Your task to perform on an android device: turn on bluetooth scan Image 0: 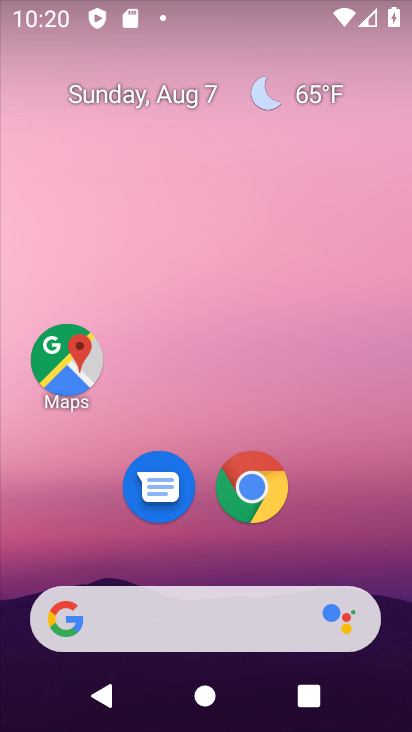
Step 0: drag from (399, 707) to (314, 24)
Your task to perform on an android device: turn on bluetooth scan Image 1: 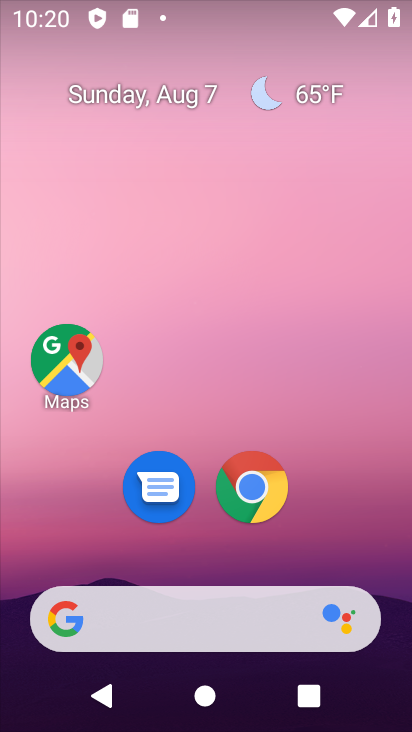
Step 1: drag from (377, 685) to (216, 22)
Your task to perform on an android device: turn on bluetooth scan Image 2: 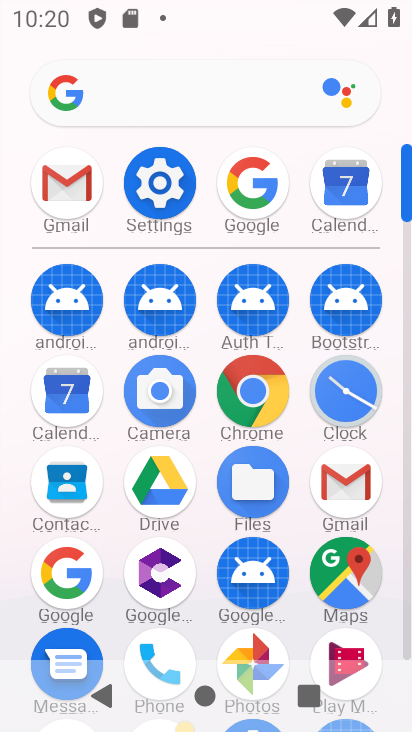
Step 2: drag from (118, 203) to (172, 178)
Your task to perform on an android device: turn on bluetooth scan Image 3: 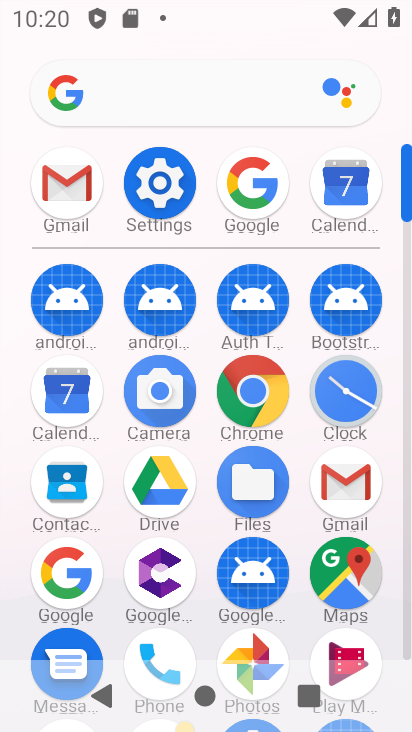
Step 3: click (171, 178)
Your task to perform on an android device: turn on bluetooth scan Image 4: 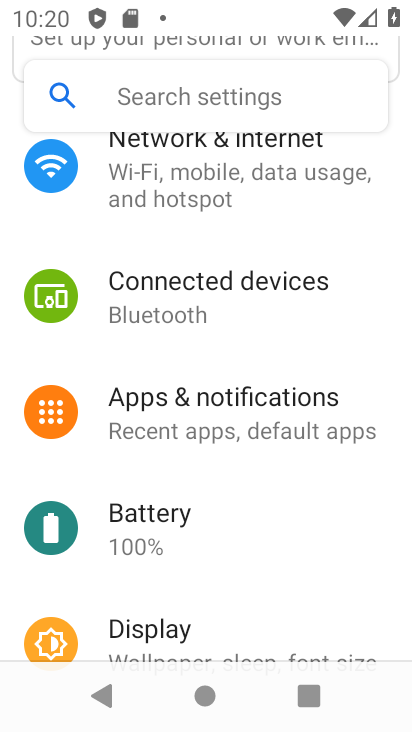
Step 4: drag from (232, 581) to (293, 189)
Your task to perform on an android device: turn on bluetooth scan Image 5: 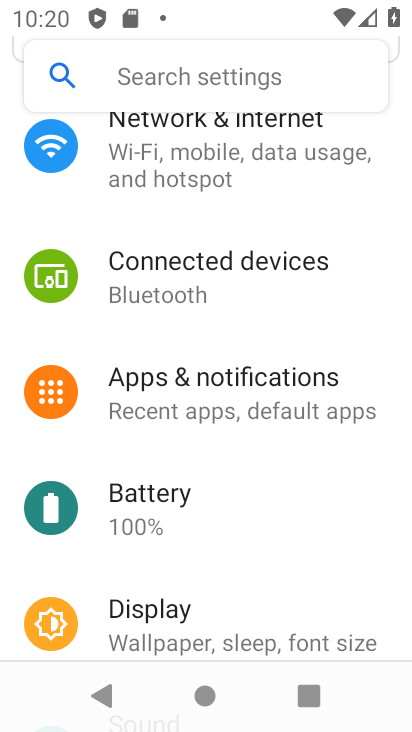
Step 5: drag from (300, 578) to (267, 182)
Your task to perform on an android device: turn on bluetooth scan Image 6: 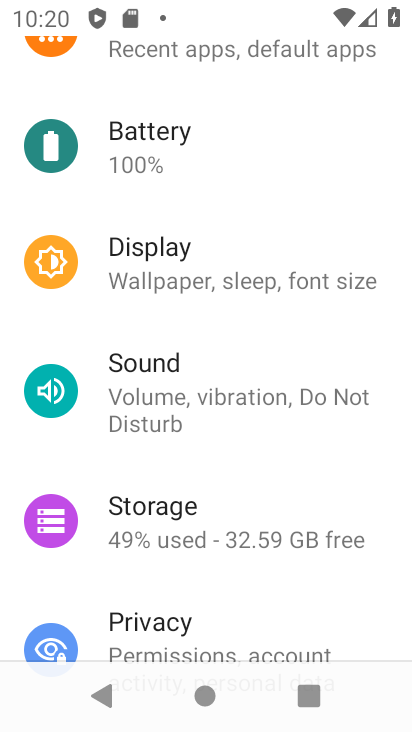
Step 6: drag from (257, 590) to (270, 122)
Your task to perform on an android device: turn on bluetooth scan Image 7: 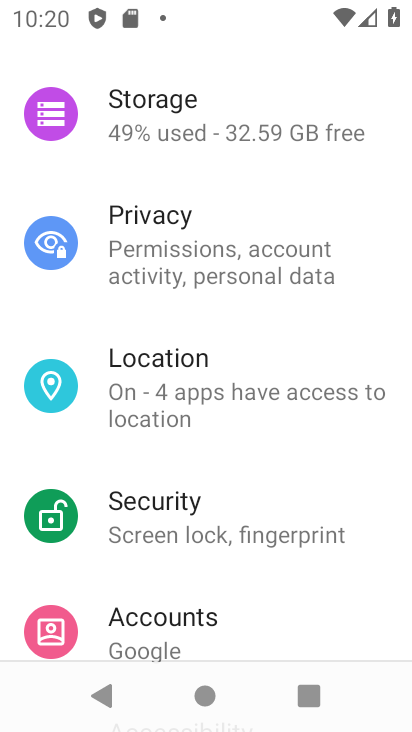
Step 7: click (137, 379)
Your task to perform on an android device: turn on bluetooth scan Image 8: 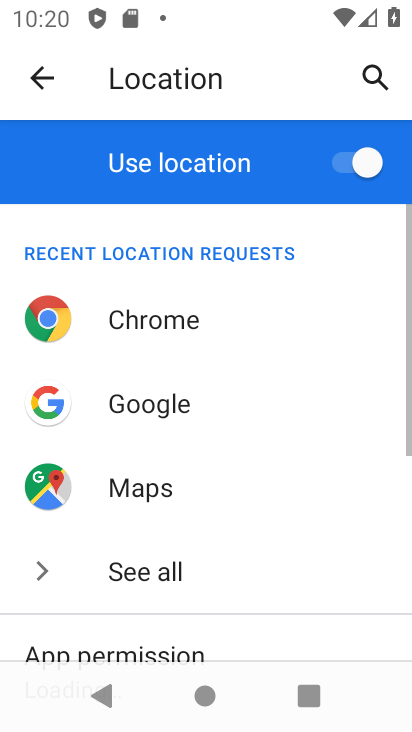
Step 8: drag from (249, 624) to (256, 17)
Your task to perform on an android device: turn on bluetooth scan Image 9: 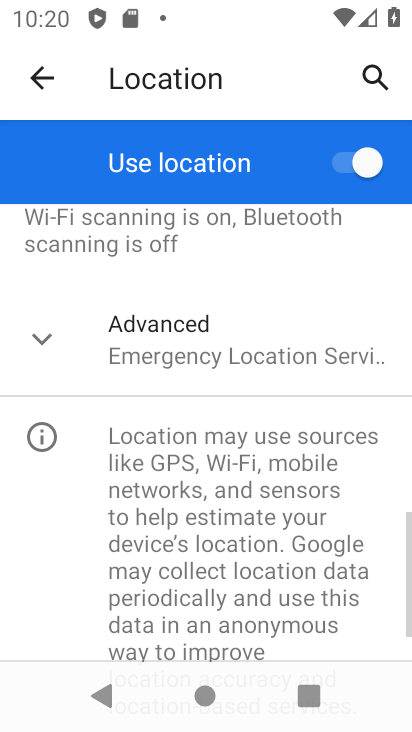
Step 9: click (126, 239)
Your task to perform on an android device: turn on bluetooth scan Image 10: 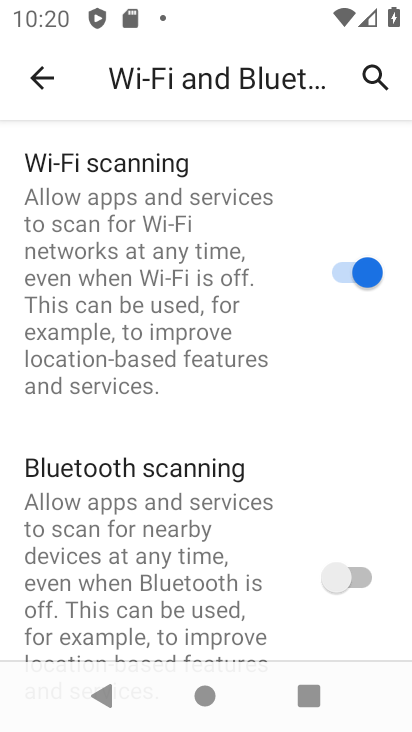
Step 10: click (347, 572)
Your task to perform on an android device: turn on bluetooth scan Image 11: 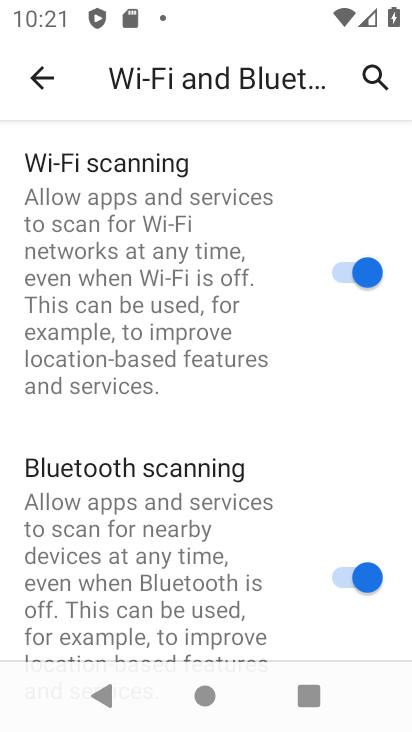
Step 11: task complete